Your task to perform on an android device: open a bookmark in the chrome app Image 0: 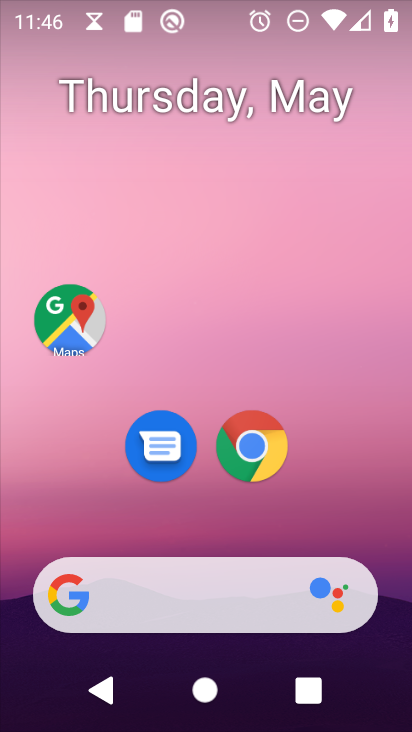
Step 0: drag from (307, 640) to (376, 199)
Your task to perform on an android device: open a bookmark in the chrome app Image 1: 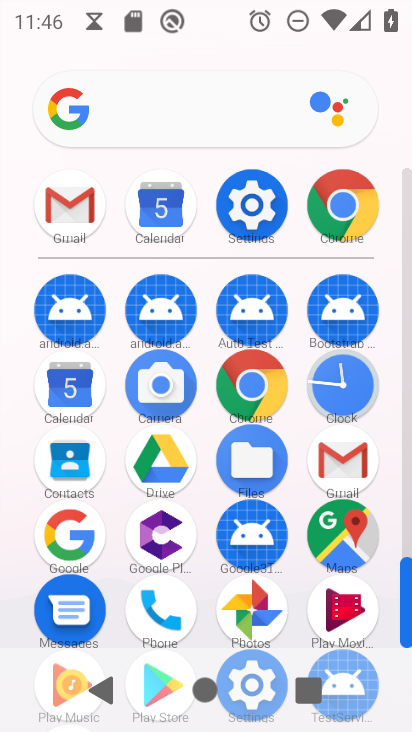
Step 1: click (323, 202)
Your task to perform on an android device: open a bookmark in the chrome app Image 2: 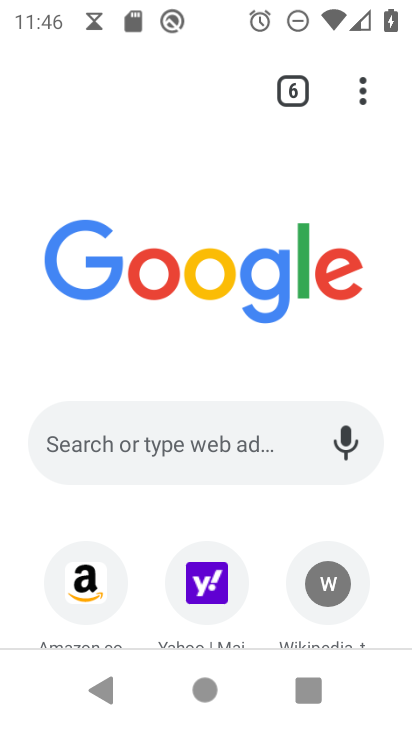
Step 2: click (358, 106)
Your task to perform on an android device: open a bookmark in the chrome app Image 3: 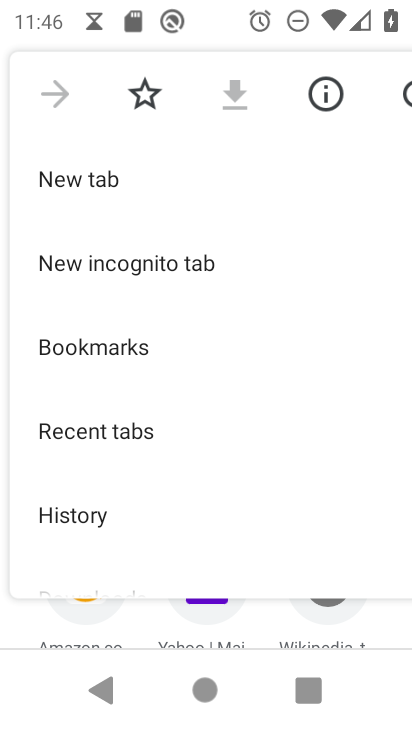
Step 3: click (136, 339)
Your task to perform on an android device: open a bookmark in the chrome app Image 4: 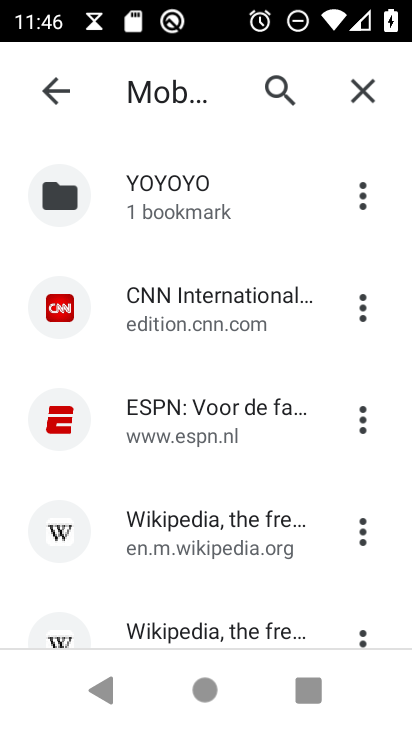
Step 4: click (190, 214)
Your task to perform on an android device: open a bookmark in the chrome app Image 5: 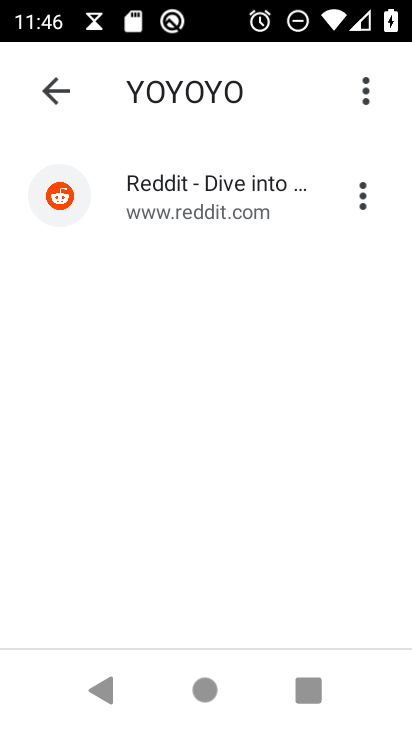
Step 5: click (201, 199)
Your task to perform on an android device: open a bookmark in the chrome app Image 6: 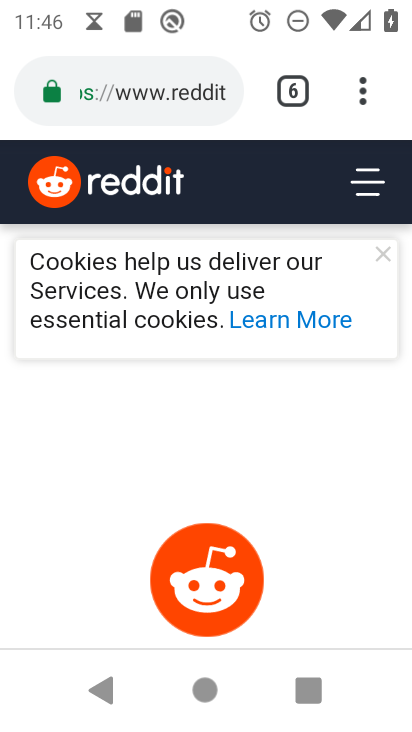
Step 6: task complete